Your task to perform on an android device: toggle notification dots Image 0: 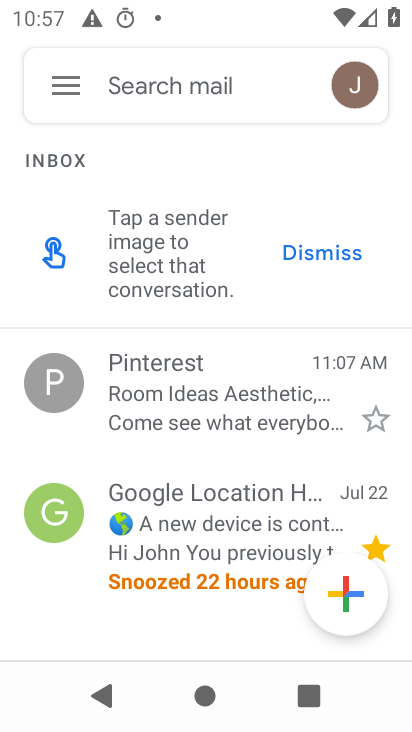
Step 0: press back button
Your task to perform on an android device: toggle notification dots Image 1: 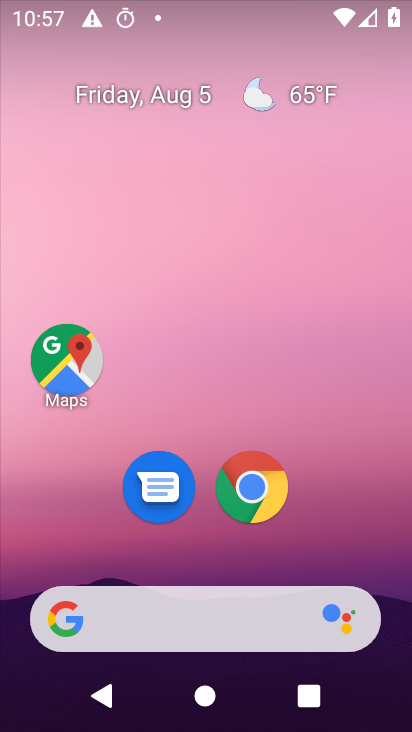
Step 1: drag from (211, 562) to (298, 0)
Your task to perform on an android device: toggle notification dots Image 2: 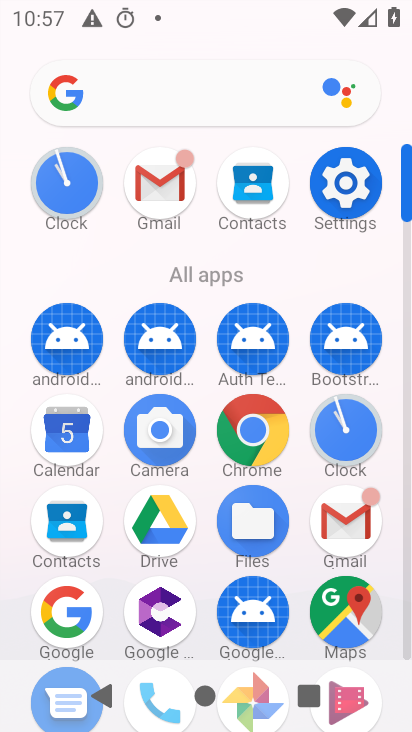
Step 2: click (339, 179)
Your task to perform on an android device: toggle notification dots Image 3: 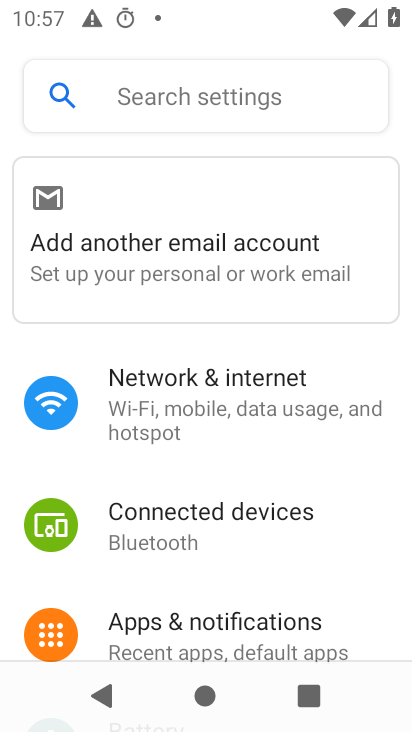
Step 3: click (186, 634)
Your task to perform on an android device: toggle notification dots Image 4: 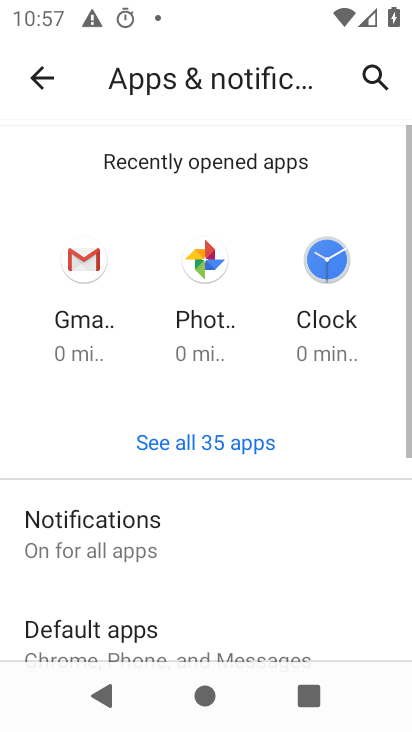
Step 4: drag from (222, 579) to (311, 64)
Your task to perform on an android device: toggle notification dots Image 5: 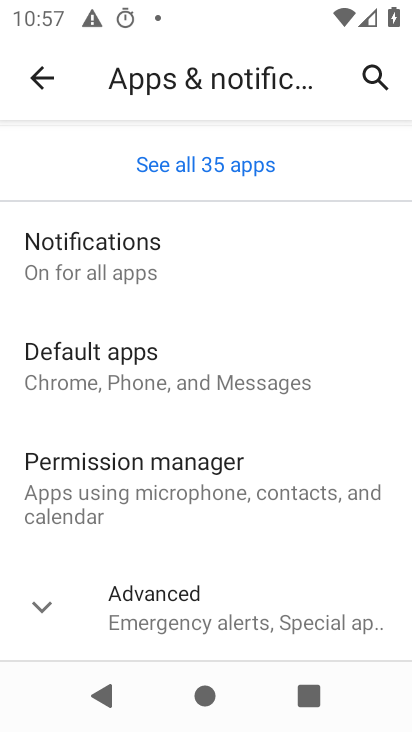
Step 5: click (236, 620)
Your task to perform on an android device: toggle notification dots Image 6: 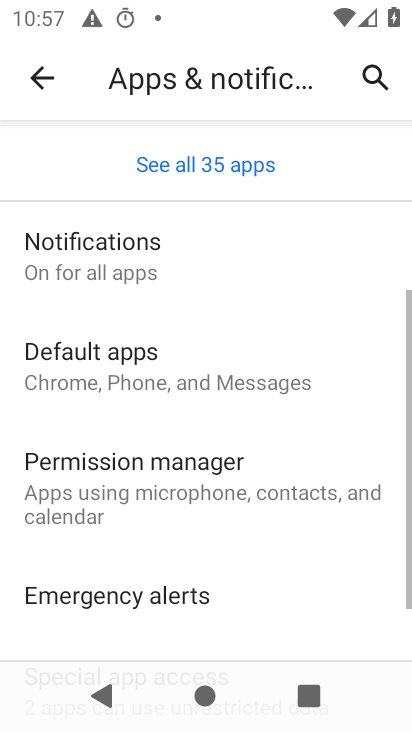
Step 6: drag from (235, 612) to (305, 184)
Your task to perform on an android device: toggle notification dots Image 7: 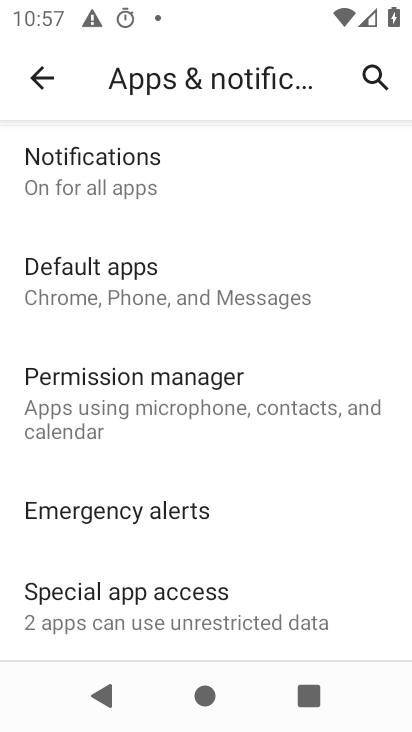
Step 7: click (107, 174)
Your task to perform on an android device: toggle notification dots Image 8: 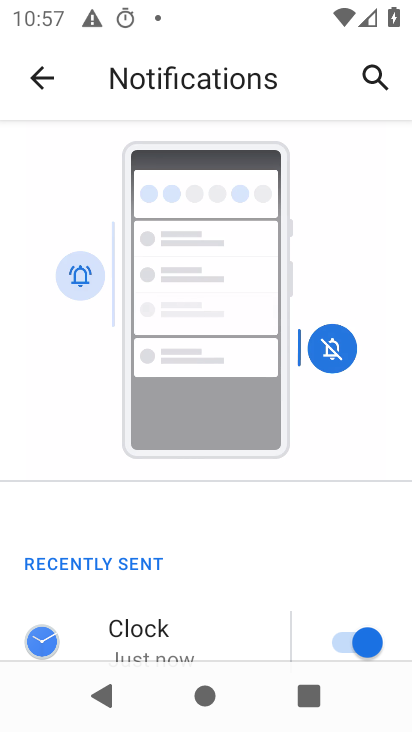
Step 8: drag from (160, 646) to (271, 116)
Your task to perform on an android device: toggle notification dots Image 9: 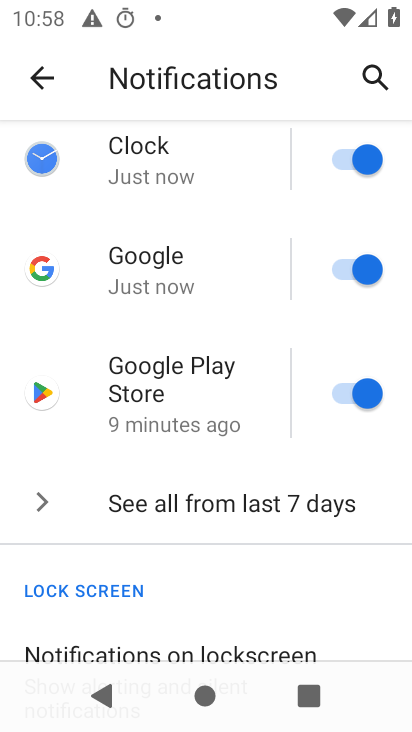
Step 9: drag from (182, 614) to (290, 128)
Your task to perform on an android device: toggle notification dots Image 10: 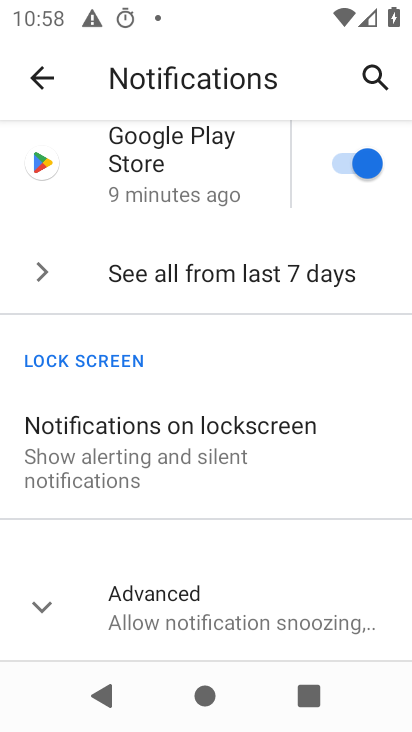
Step 10: click (210, 607)
Your task to perform on an android device: toggle notification dots Image 11: 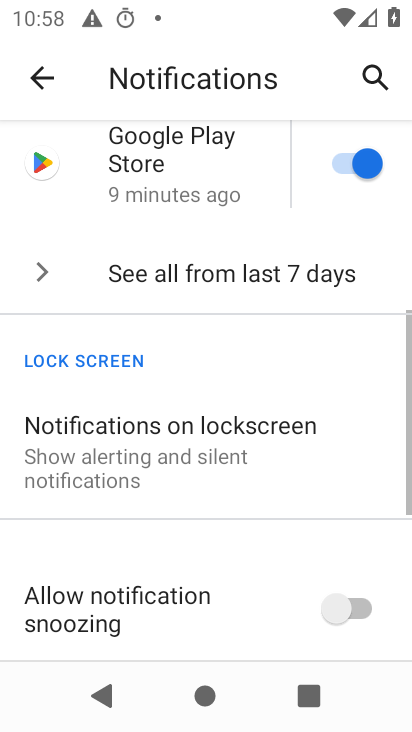
Step 11: drag from (216, 596) to (273, 126)
Your task to perform on an android device: toggle notification dots Image 12: 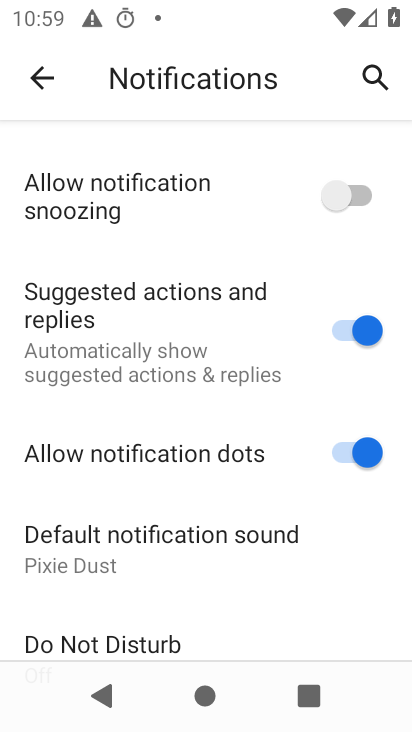
Step 12: click (362, 457)
Your task to perform on an android device: toggle notification dots Image 13: 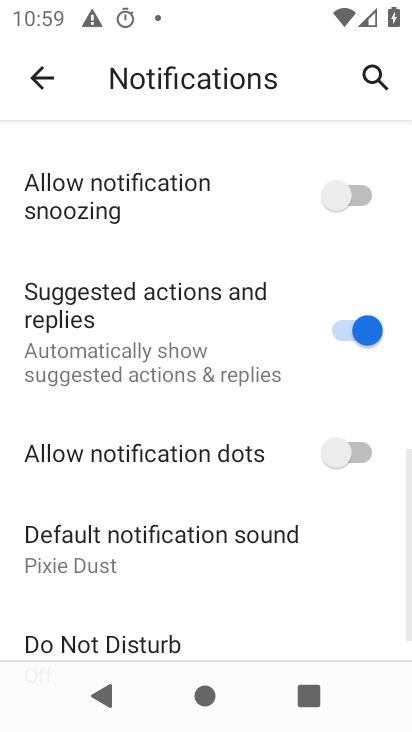
Step 13: task complete